Your task to perform on an android device: What's the weather today? Image 0: 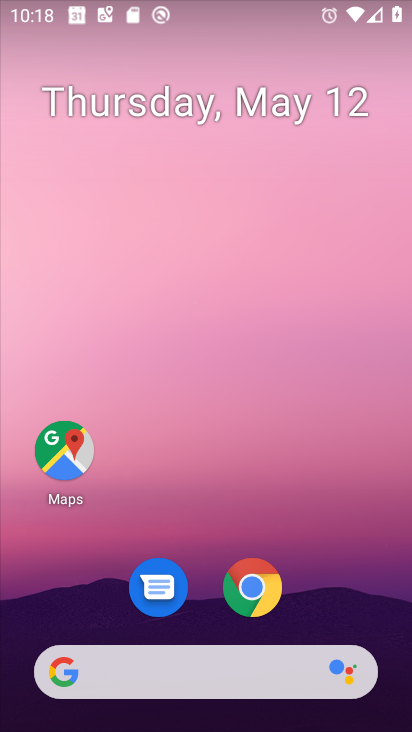
Step 0: click (207, 663)
Your task to perform on an android device: What's the weather today? Image 1: 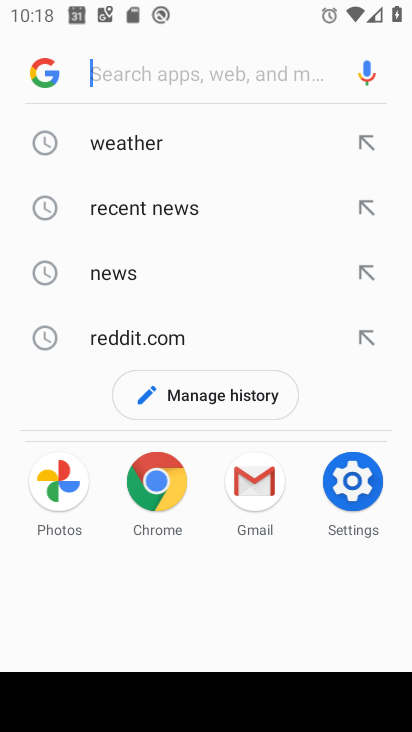
Step 1: click (368, 132)
Your task to perform on an android device: What's the weather today? Image 2: 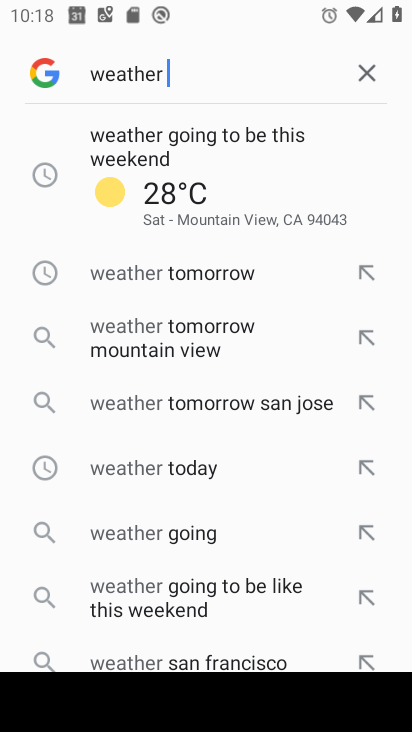
Step 2: click (242, 486)
Your task to perform on an android device: What's the weather today? Image 3: 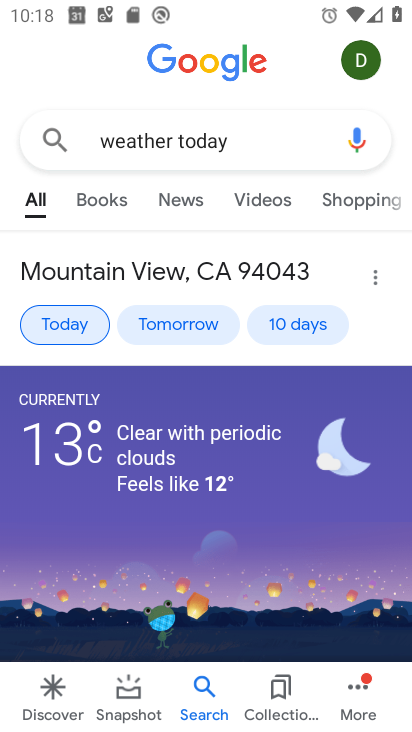
Step 3: task complete